Your task to perform on an android device: turn on showing notifications on the lock screen Image 0: 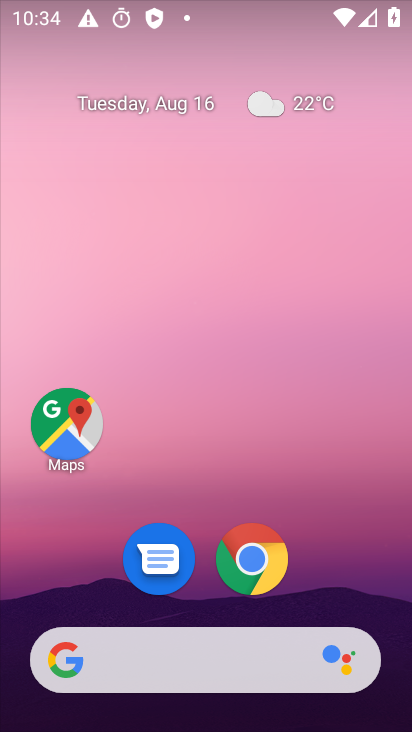
Step 0: drag from (190, 123) to (194, 78)
Your task to perform on an android device: turn on showing notifications on the lock screen Image 1: 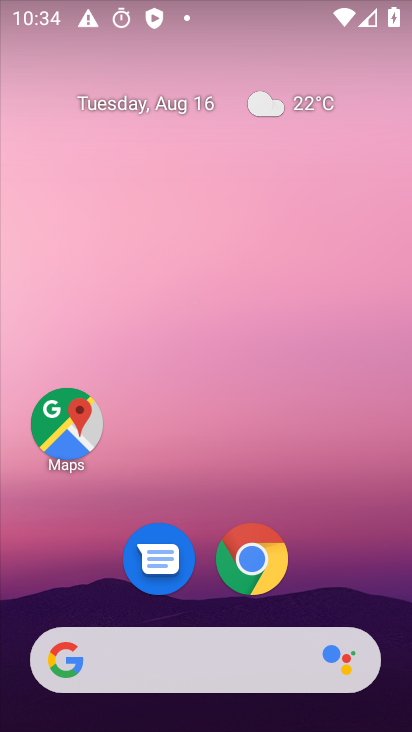
Step 1: drag from (206, 596) to (222, 61)
Your task to perform on an android device: turn on showing notifications on the lock screen Image 2: 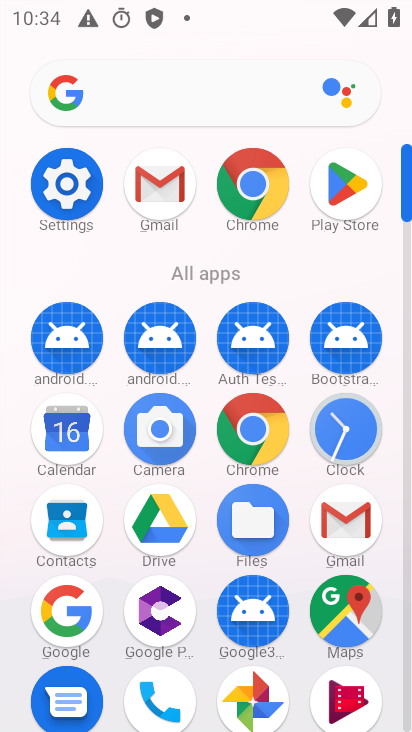
Step 2: click (69, 185)
Your task to perform on an android device: turn on showing notifications on the lock screen Image 3: 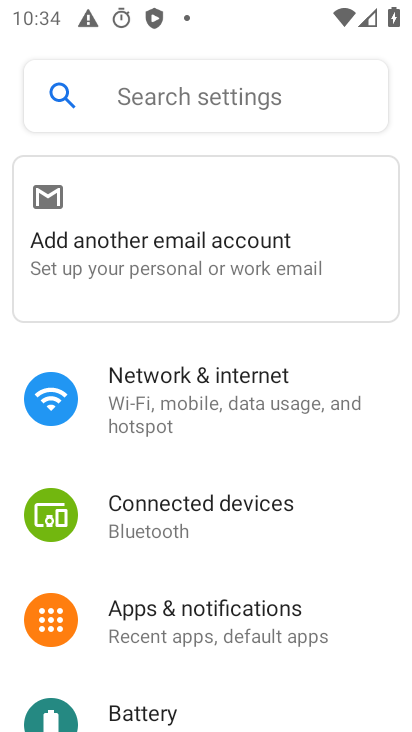
Step 3: drag from (257, 673) to (240, 389)
Your task to perform on an android device: turn on showing notifications on the lock screen Image 4: 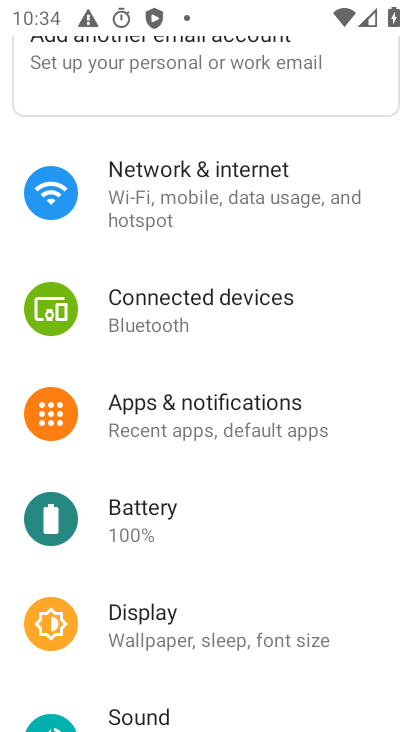
Step 4: click (203, 405)
Your task to perform on an android device: turn on showing notifications on the lock screen Image 5: 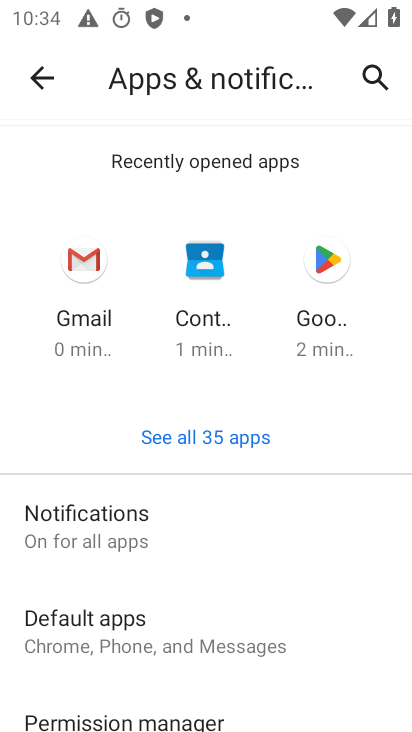
Step 5: drag from (195, 689) to (212, 415)
Your task to perform on an android device: turn on showing notifications on the lock screen Image 6: 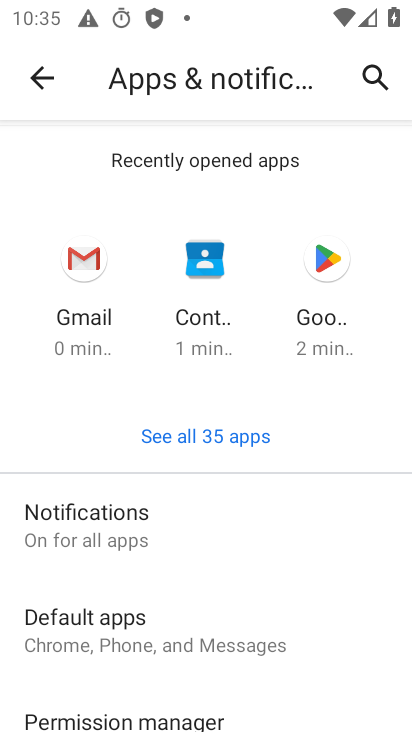
Step 6: drag from (294, 669) to (259, 296)
Your task to perform on an android device: turn on showing notifications on the lock screen Image 7: 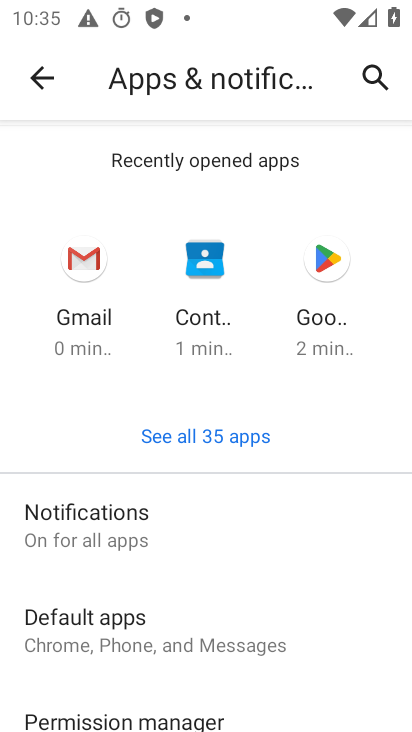
Step 7: drag from (279, 671) to (287, 206)
Your task to perform on an android device: turn on showing notifications on the lock screen Image 8: 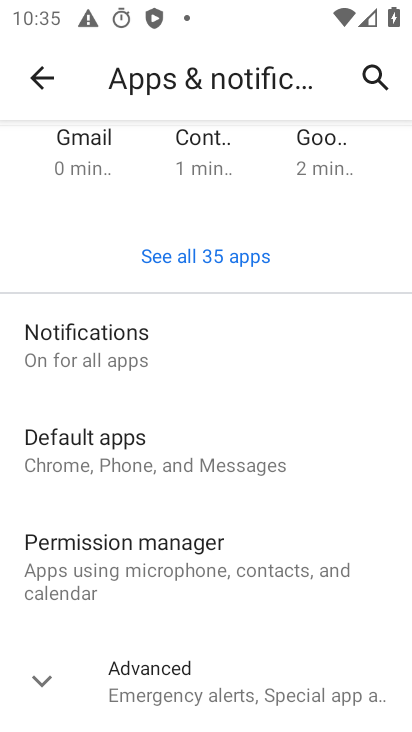
Step 8: click (203, 112)
Your task to perform on an android device: turn on showing notifications on the lock screen Image 9: 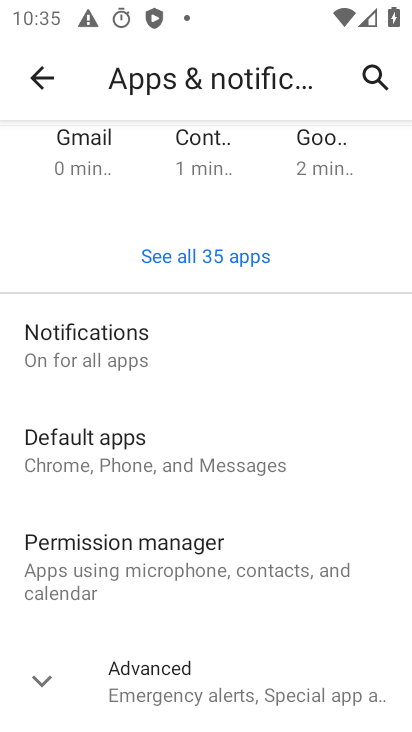
Step 9: click (123, 684)
Your task to perform on an android device: turn on showing notifications on the lock screen Image 10: 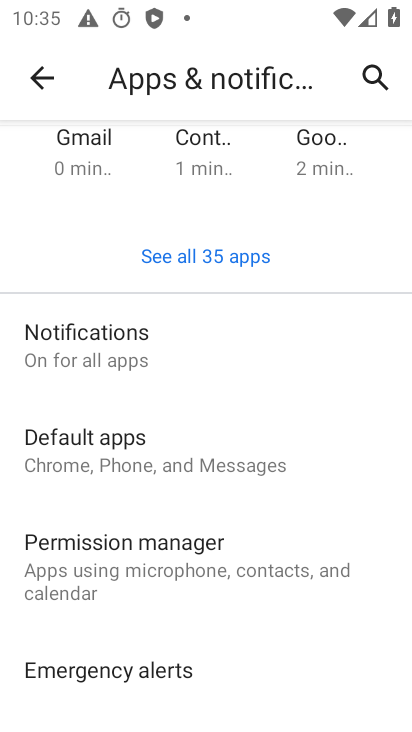
Step 10: drag from (230, 653) to (305, 283)
Your task to perform on an android device: turn on showing notifications on the lock screen Image 11: 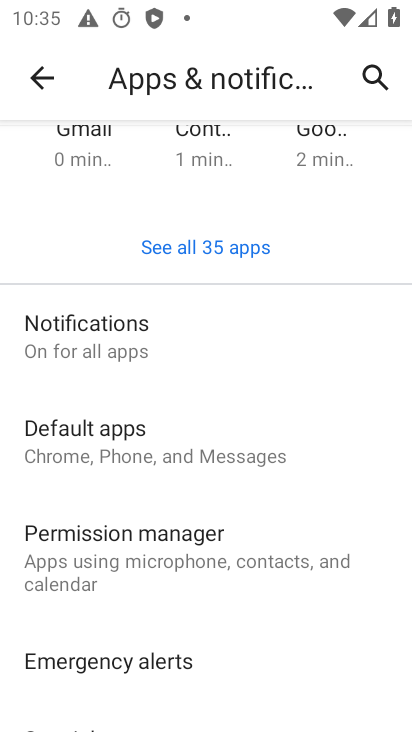
Step 11: drag from (208, 527) to (239, 333)
Your task to perform on an android device: turn on showing notifications on the lock screen Image 12: 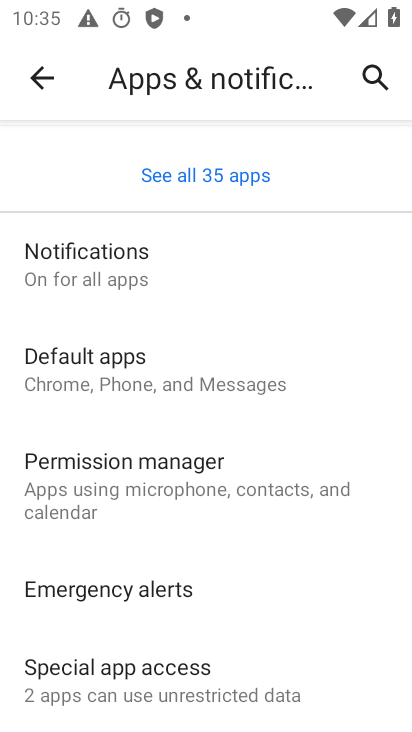
Step 12: click (64, 251)
Your task to perform on an android device: turn on showing notifications on the lock screen Image 13: 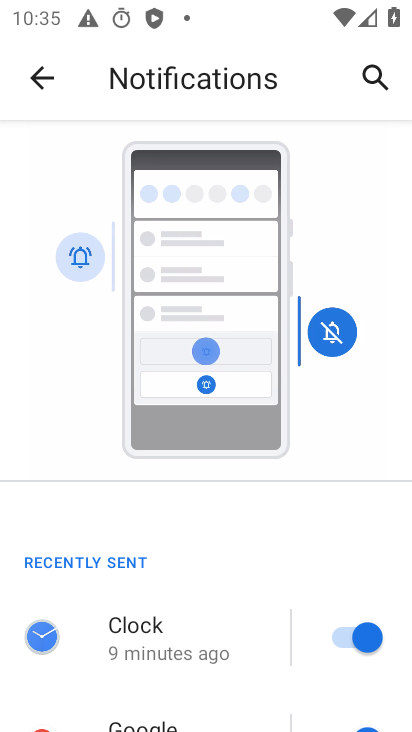
Step 13: drag from (233, 631) to (224, 177)
Your task to perform on an android device: turn on showing notifications on the lock screen Image 14: 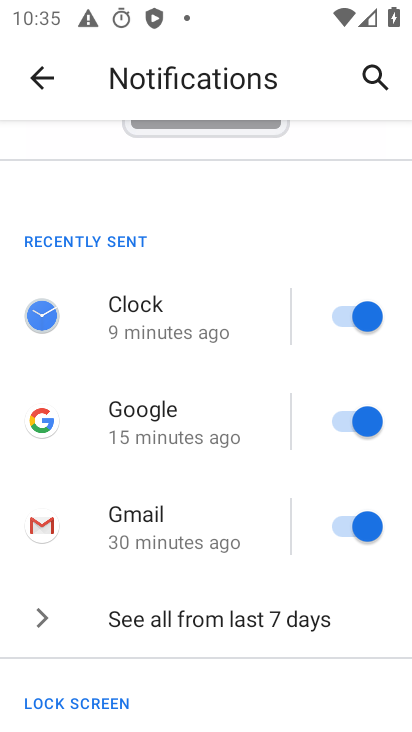
Step 14: drag from (201, 629) to (219, 348)
Your task to perform on an android device: turn on showing notifications on the lock screen Image 15: 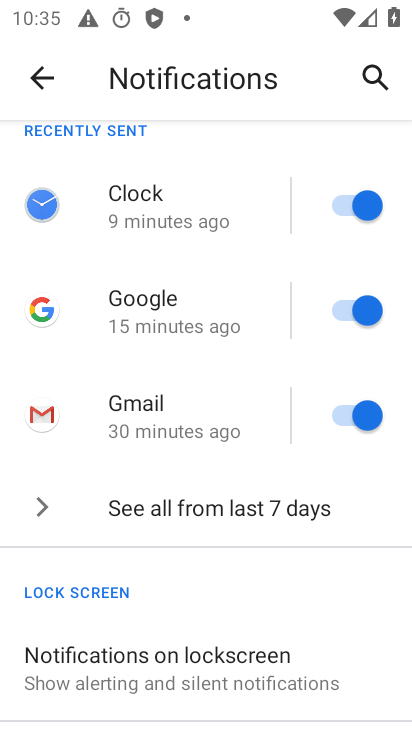
Step 15: click (174, 647)
Your task to perform on an android device: turn on showing notifications on the lock screen Image 16: 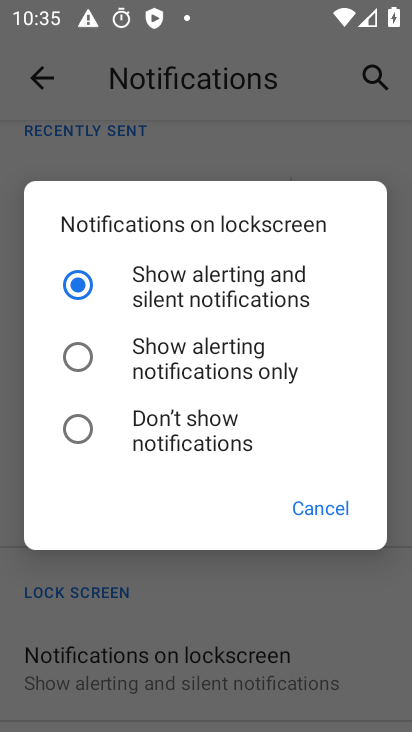
Step 16: task complete